Your task to perform on an android device: Open Chrome and go to settings Image 0: 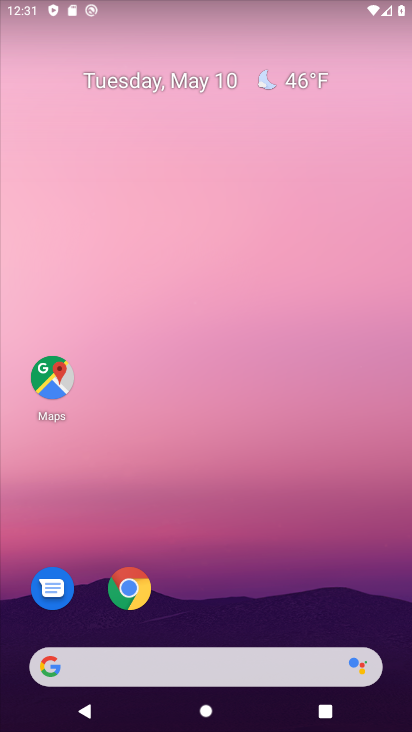
Step 0: click (123, 577)
Your task to perform on an android device: Open Chrome and go to settings Image 1: 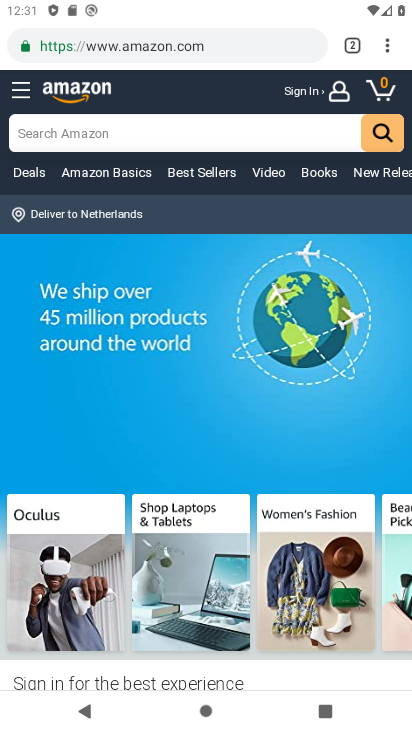
Step 1: click (387, 43)
Your task to perform on an android device: Open Chrome and go to settings Image 2: 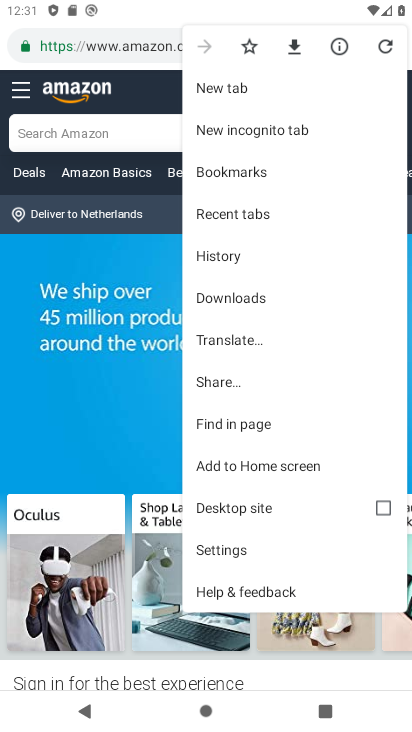
Step 2: click (241, 535)
Your task to perform on an android device: Open Chrome and go to settings Image 3: 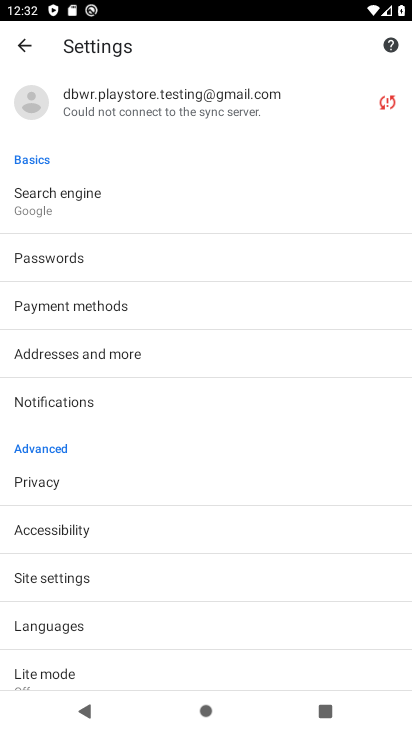
Step 3: task complete